Your task to perform on an android device: Go to ESPN.com Image 0: 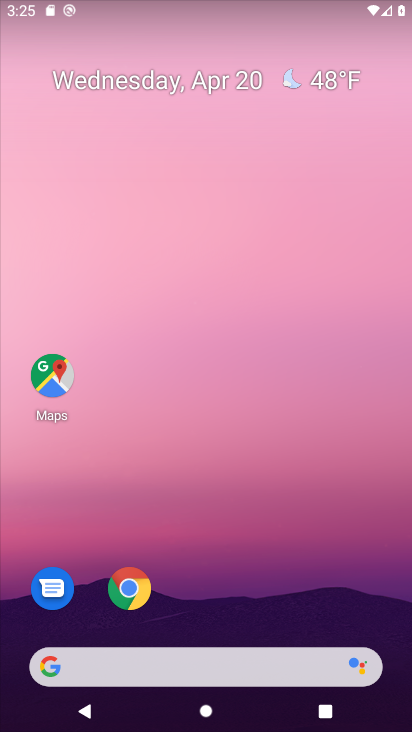
Step 0: drag from (307, 620) to (232, 77)
Your task to perform on an android device: Go to ESPN.com Image 1: 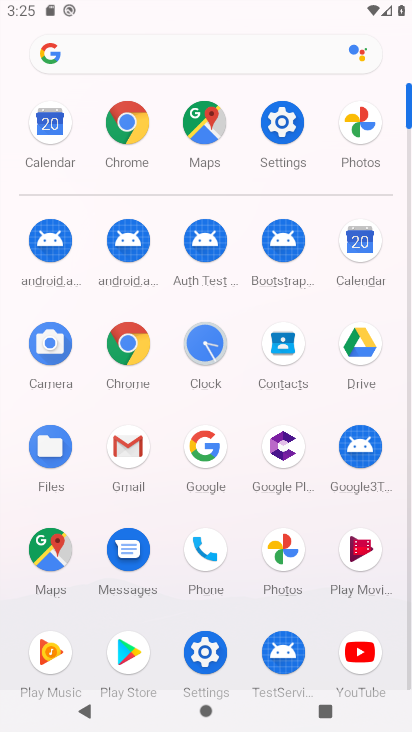
Step 1: click (116, 346)
Your task to perform on an android device: Go to ESPN.com Image 2: 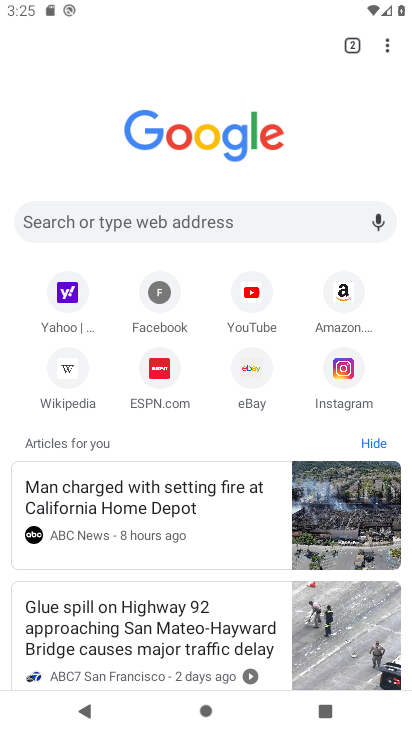
Step 2: click (151, 372)
Your task to perform on an android device: Go to ESPN.com Image 3: 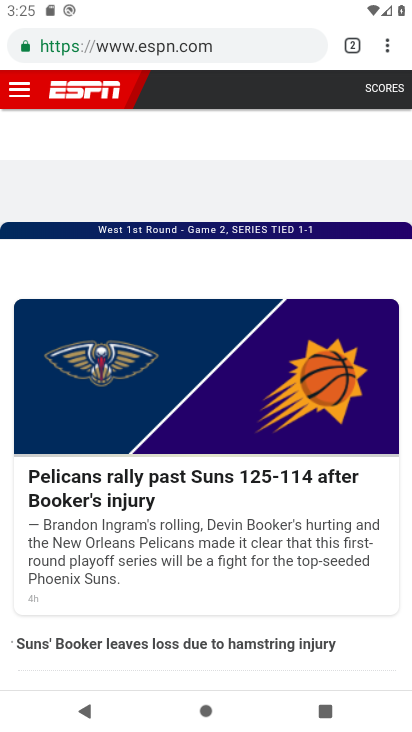
Step 3: task complete